Your task to perform on an android device: Search for pizza restaurants on Maps Image 0: 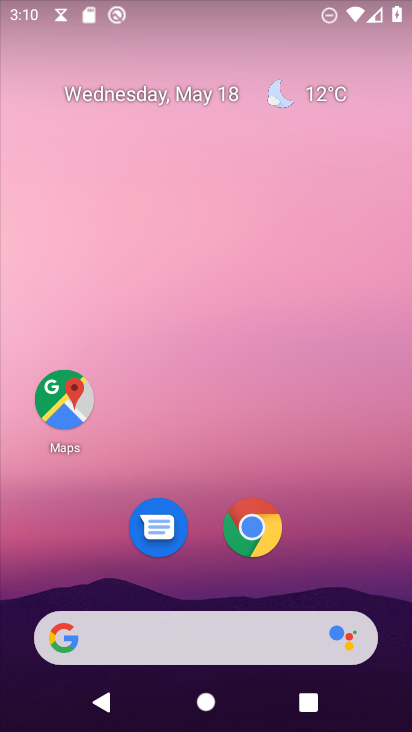
Step 0: click (74, 408)
Your task to perform on an android device: Search for pizza restaurants on Maps Image 1: 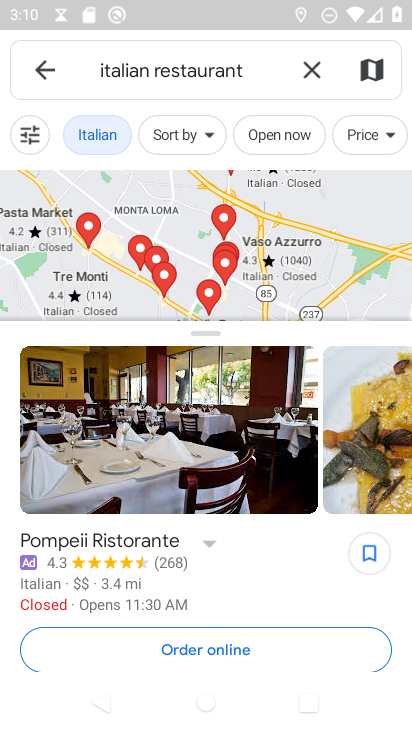
Step 1: click (312, 66)
Your task to perform on an android device: Search for pizza restaurants on Maps Image 2: 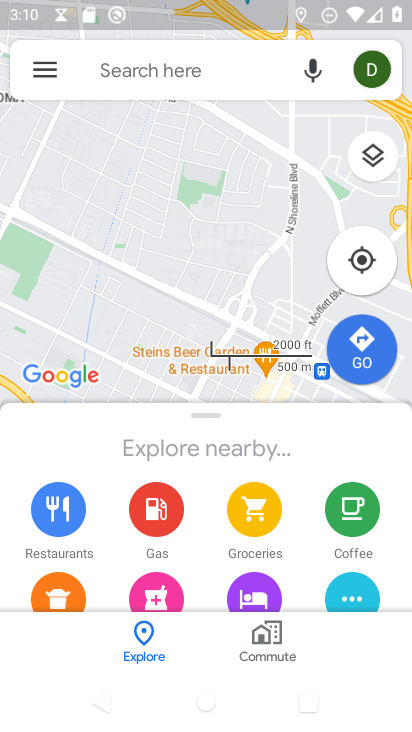
Step 2: click (196, 68)
Your task to perform on an android device: Search for pizza restaurants on Maps Image 3: 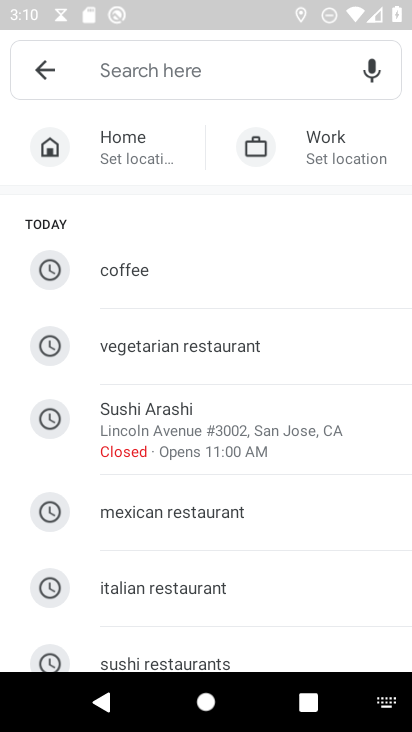
Step 3: type "pizza restaurants"
Your task to perform on an android device: Search for pizza restaurants on Maps Image 4: 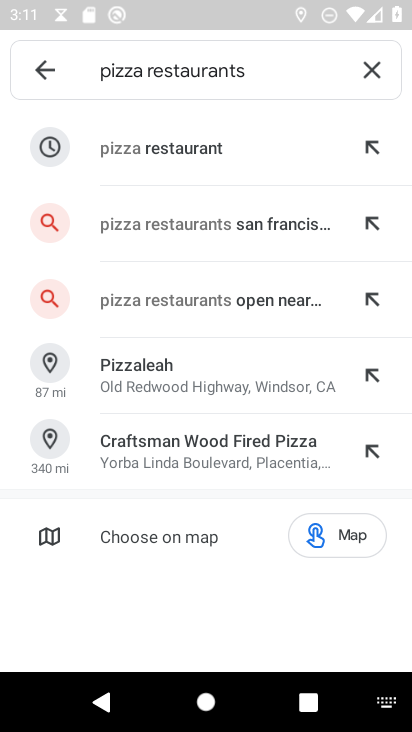
Step 4: click (189, 147)
Your task to perform on an android device: Search for pizza restaurants on Maps Image 5: 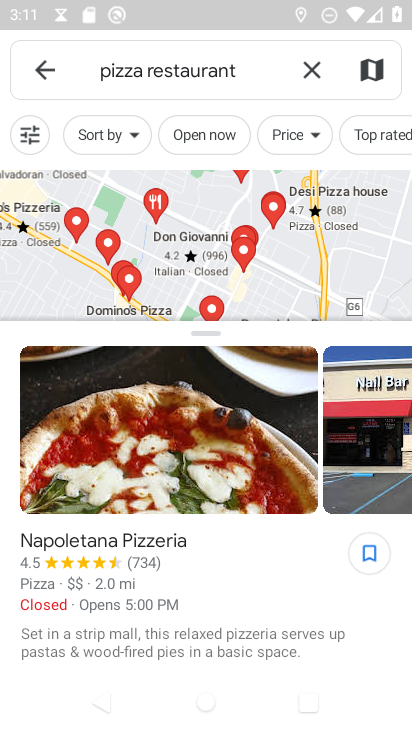
Step 5: task complete